Your task to perform on an android device: find snoozed emails in the gmail app Image 0: 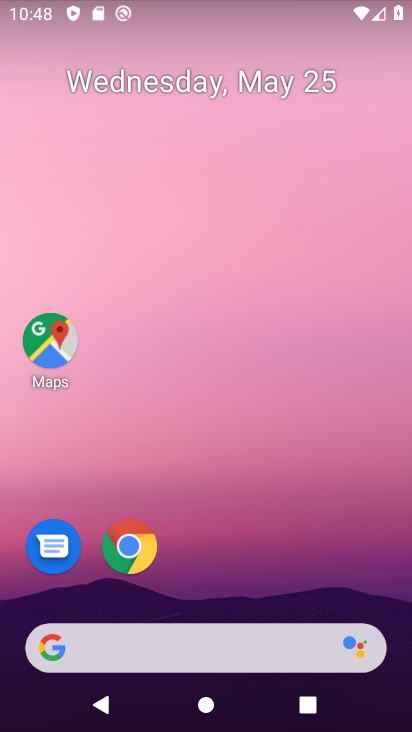
Step 0: drag from (263, 384) to (253, 132)
Your task to perform on an android device: find snoozed emails in the gmail app Image 1: 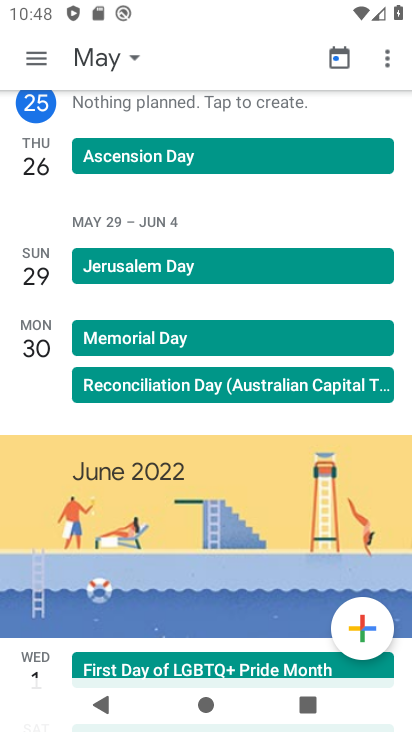
Step 1: press home button
Your task to perform on an android device: find snoozed emails in the gmail app Image 2: 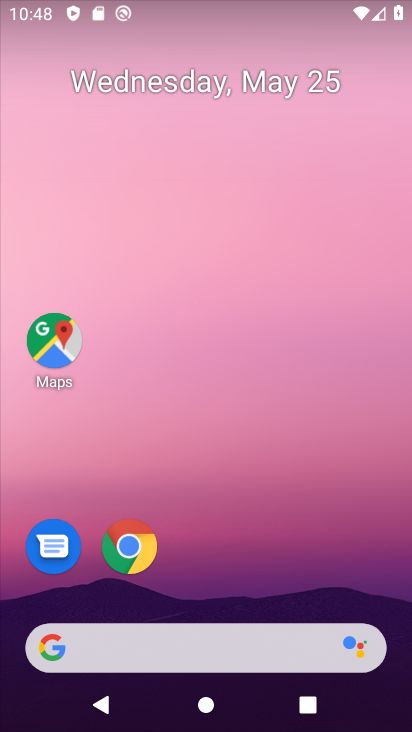
Step 2: drag from (373, 566) to (324, 106)
Your task to perform on an android device: find snoozed emails in the gmail app Image 3: 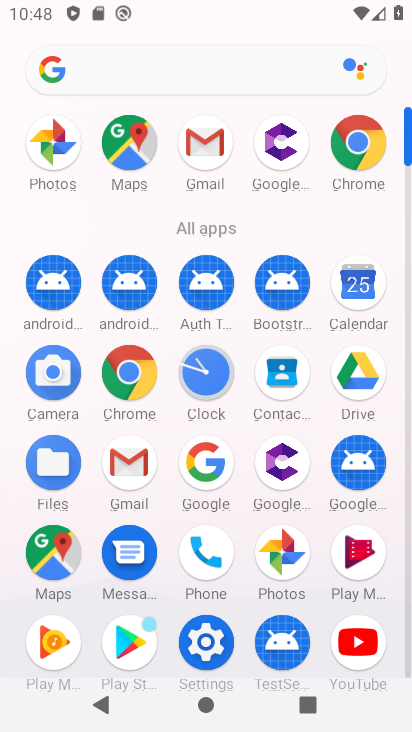
Step 3: click (119, 468)
Your task to perform on an android device: find snoozed emails in the gmail app Image 4: 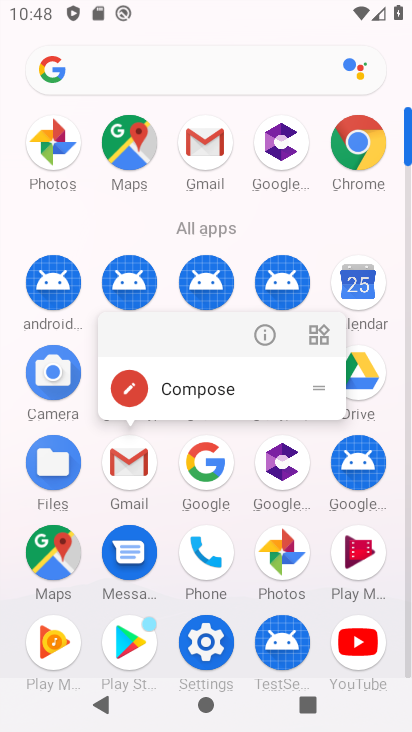
Step 4: click (119, 468)
Your task to perform on an android device: find snoozed emails in the gmail app Image 5: 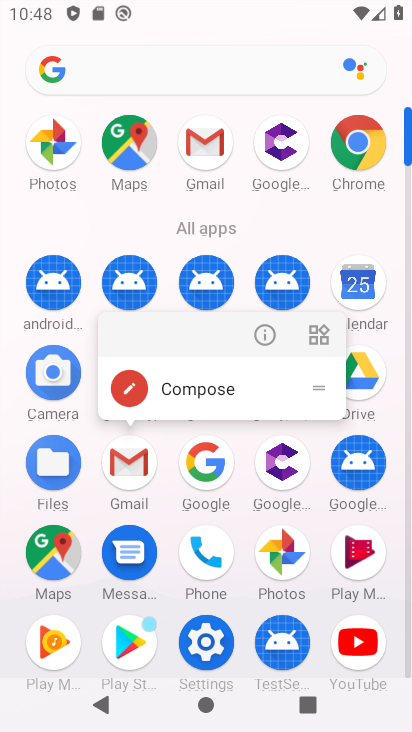
Step 5: click (121, 486)
Your task to perform on an android device: find snoozed emails in the gmail app Image 6: 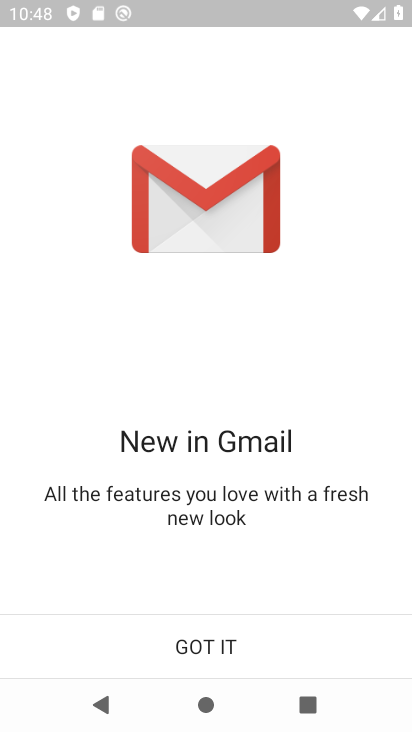
Step 6: click (234, 636)
Your task to perform on an android device: find snoozed emails in the gmail app Image 7: 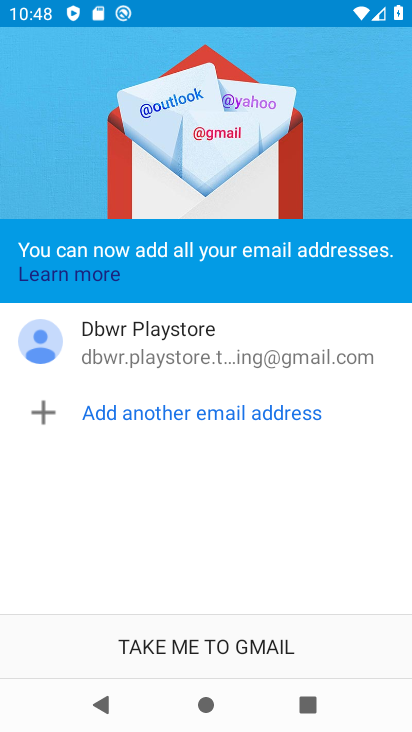
Step 7: click (261, 654)
Your task to perform on an android device: find snoozed emails in the gmail app Image 8: 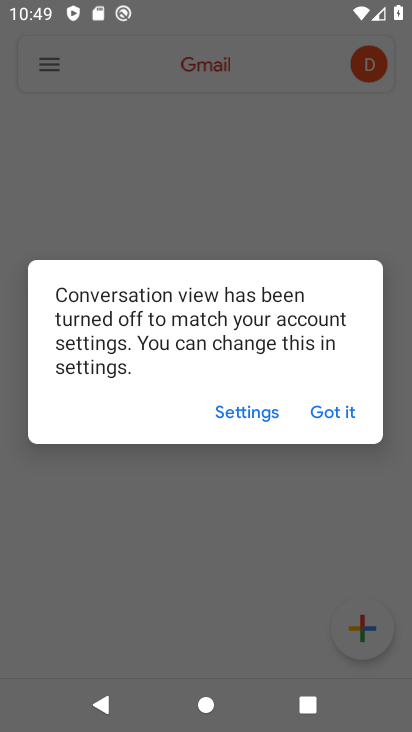
Step 8: click (355, 410)
Your task to perform on an android device: find snoozed emails in the gmail app Image 9: 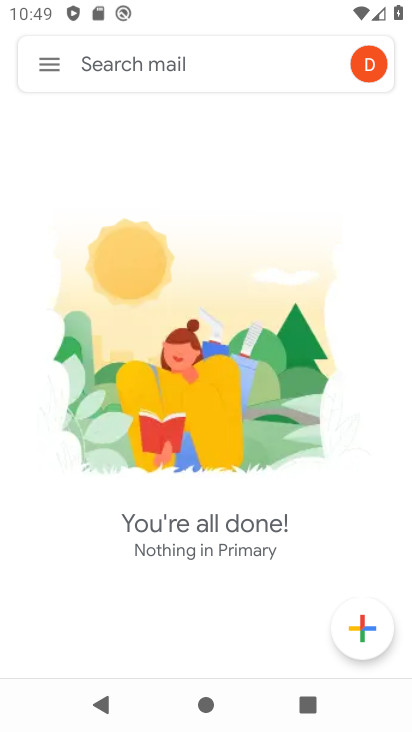
Step 9: click (59, 63)
Your task to perform on an android device: find snoozed emails in the gmail app Image 10: 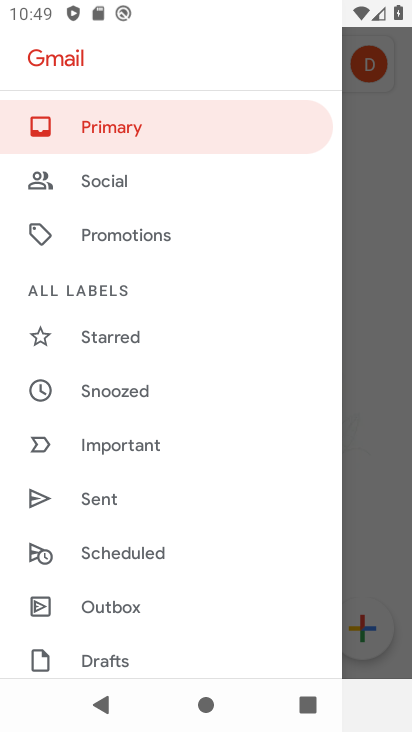
Step 10: click (141, 380)
Your task to perform on an android device: find snoozed emails in the gmail app Image 11: 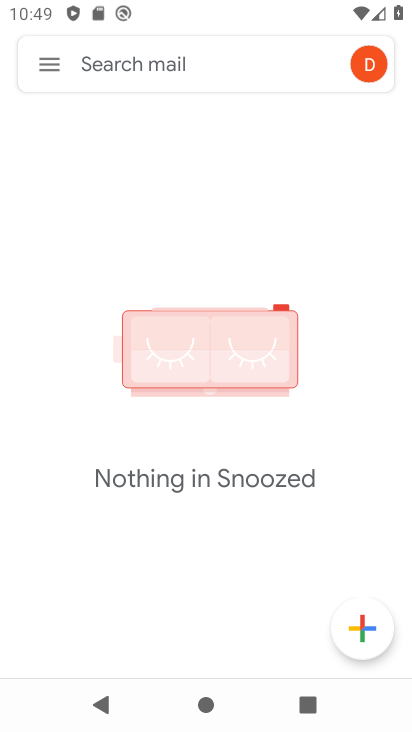
Step 11: task complete